Your task to perform on an android device: Show the shopping cart on amazon.com. Search for "bose soundsport free" on amazon.com, select the first entry, and add it to the cart. Image 0: 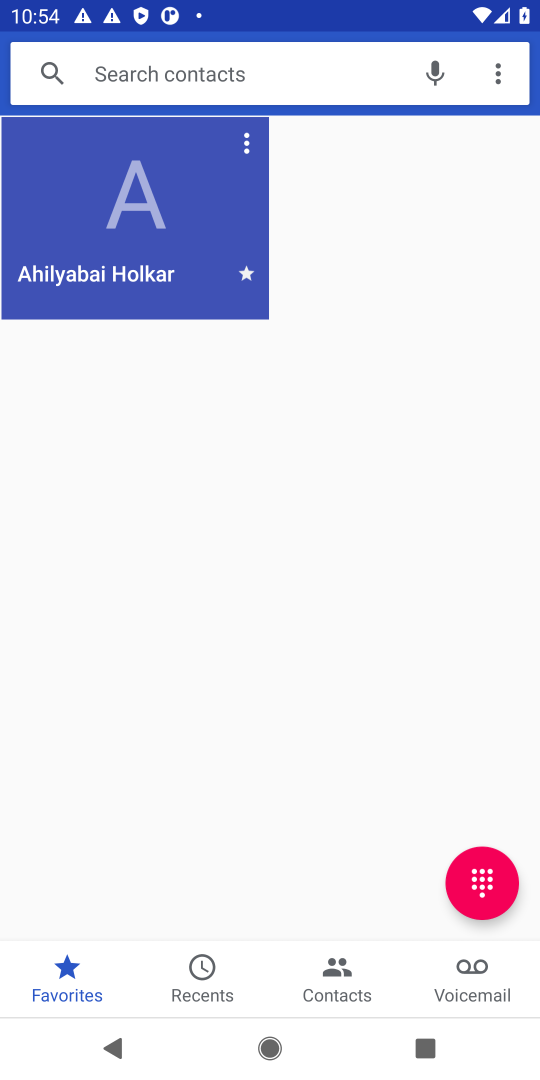
Step 0: press home button
Your task to perform on an android device: Show the shopping cart on amazon.com. Search for "bose soundsport free" on amazon.com, select the first entry, and add it to the cart. Image 1: 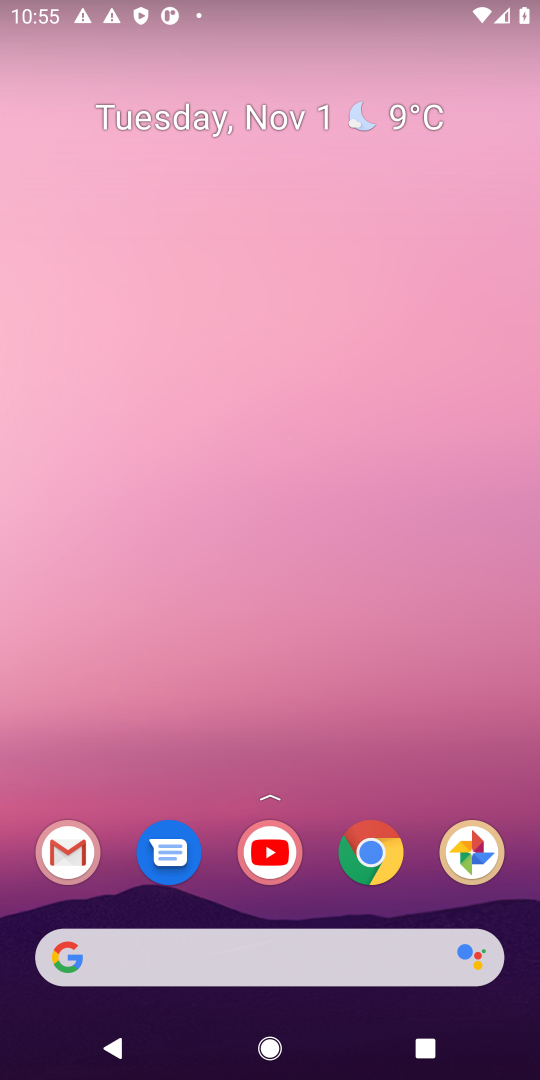
Step 1: drag from (345, 778) to (449, 278)
Your task to perform on an android device: Show the shopping cart on amazon.com. Search for "bose soundsport free" on amazon.com, select the first entry, and add it to the cart. Image 2: 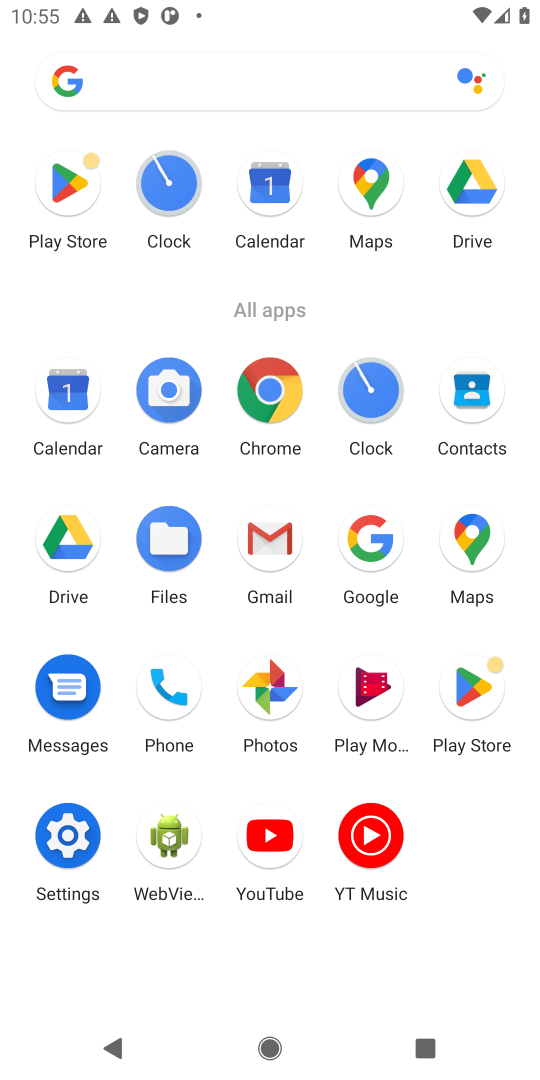
Step 2: click (364, 557)
Your task to perform on an android device: Show the shopping cart on amazon.com. Search for "bose soundsport free" on amazon.com, select the first entry, and add it to the cart. Image 3: 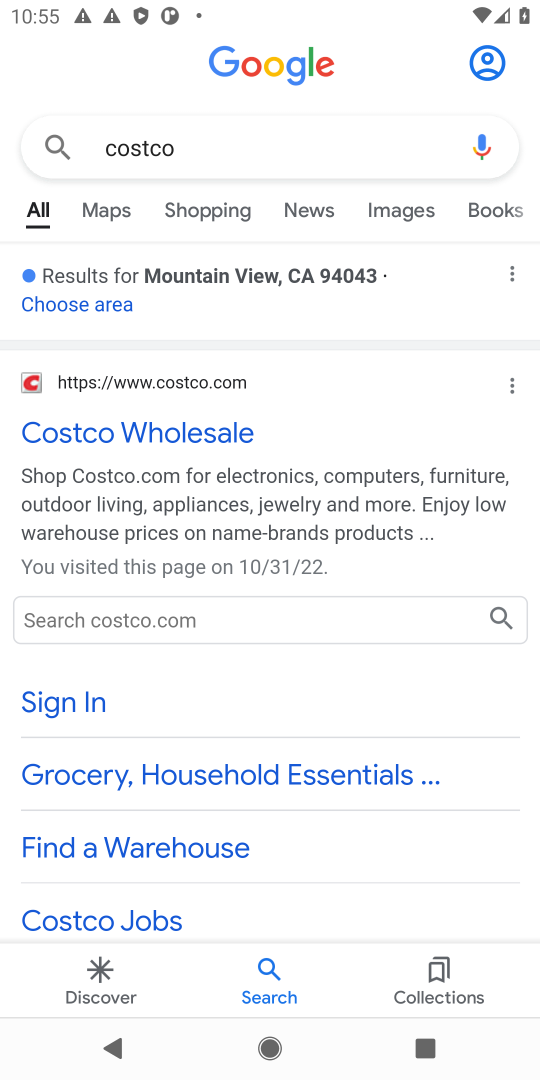
Step 3: click (349, 152)
Your task to perform on an android device: Show the shopping cart on amazon.com. Search for "bose soundsport free" on amazon.com, select the first entry, and add it to the cart. Image 4: 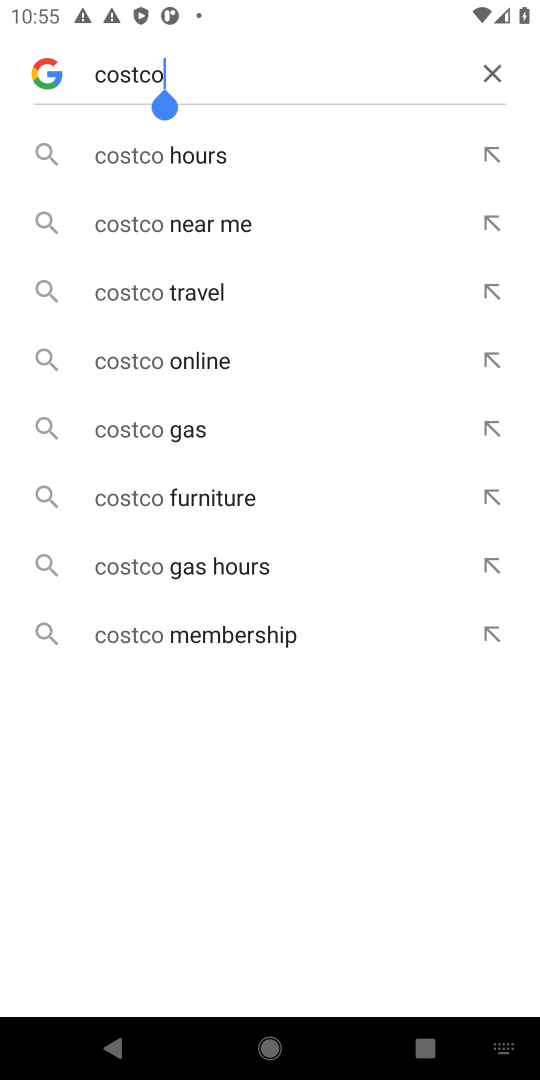
Step 4: click (504, 65)
Your task to perform on an android device: Show the shopping cart on amazon.com. Search for "bose soundsport free" on amazon.com, select the first entry, and add it to the cart. Image 5: 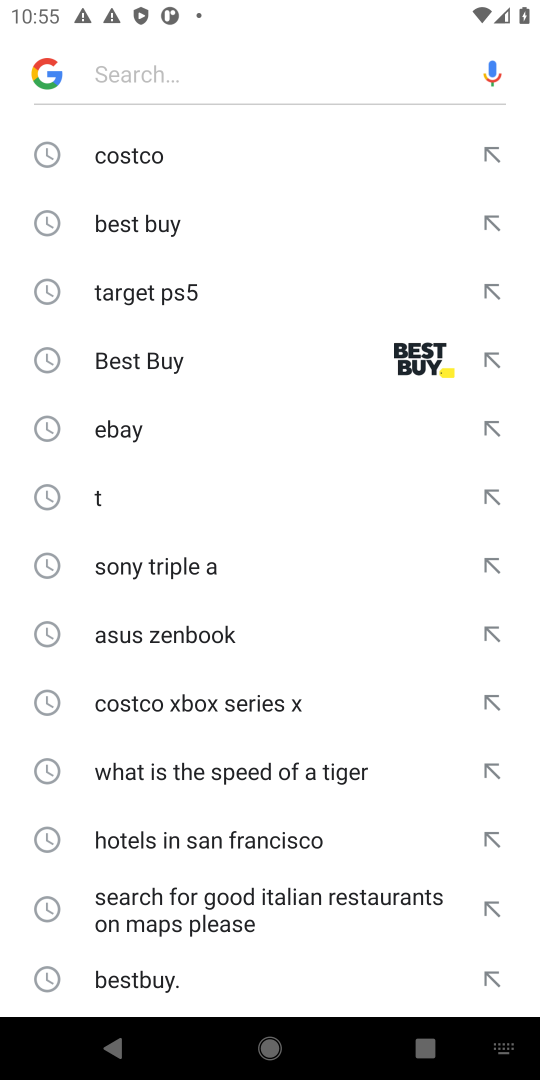
Step 5: type "amazon.com"
Your task to perform on an android device: Show the shopping cart on amazon.com. Search for "bose soundsport free" on amazon.com, select the first entry, and add it to the cart. Image 6: 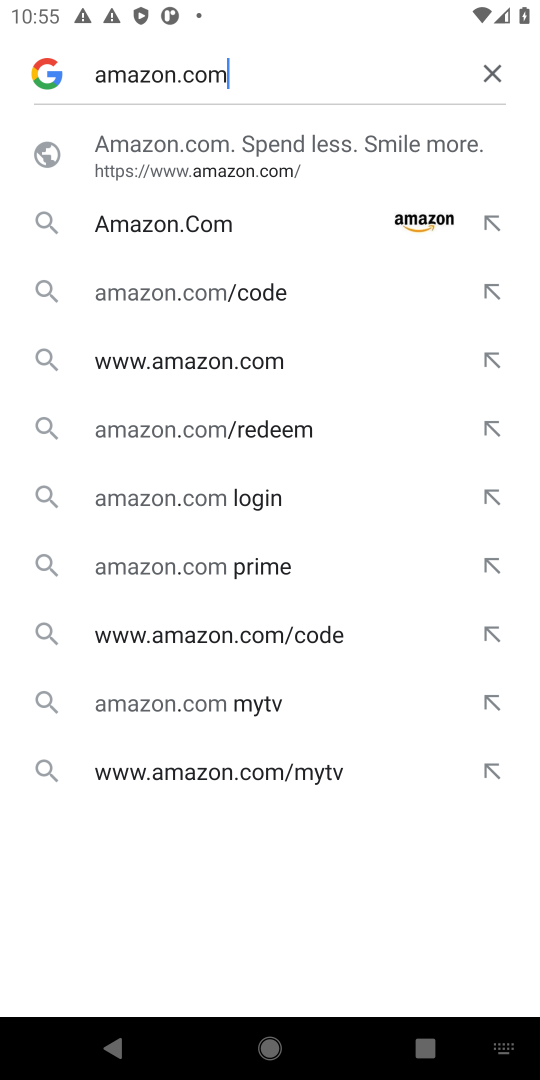
Step 6: click (281, 154)
Your task to perform on an android device: Show the shopping cart on amazon.com. Search for "bose soundsport free" on amazon.com, select the first entry, and add it to the cart. Image 7: 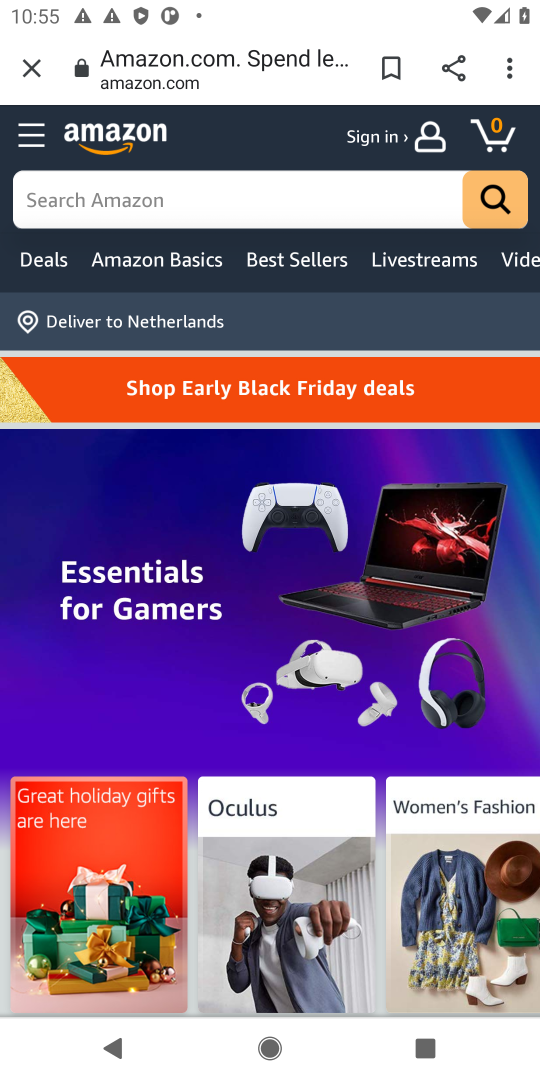
Step 7: click (303, 203)
Your task to perform on an android device: Show the shopping cart on amazon.com. Search for "bose soundsport free" on amazon.com, select the first entry, and add it to the cart. Image 8: 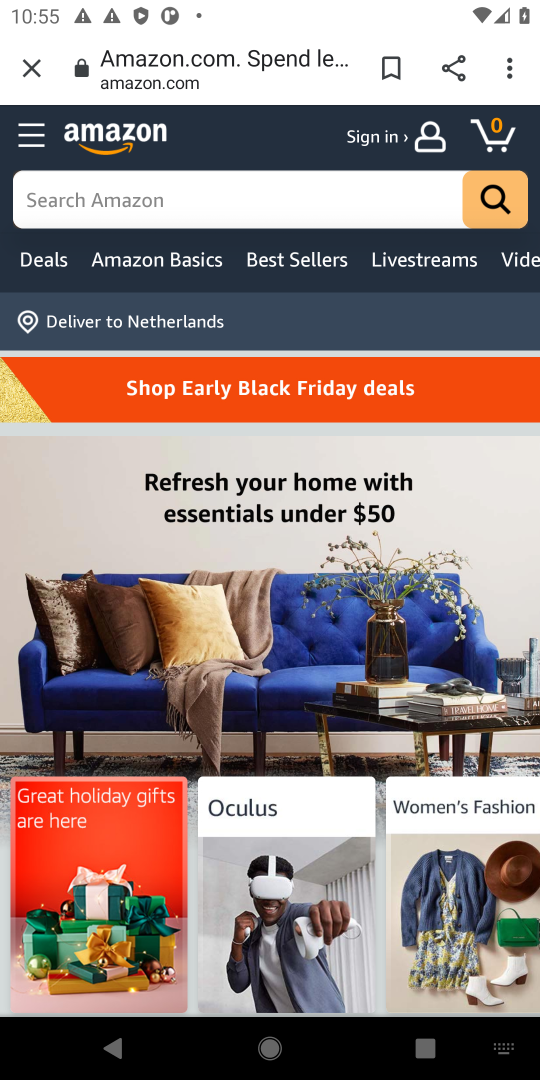
Step 8: type "bose soundsport free"
Your task to perform on an android device: Show the shopping cart on amazon.com. Search for "bose soundsport free" on amazon.com, select the first entry, and add it to the cart. Image 9: 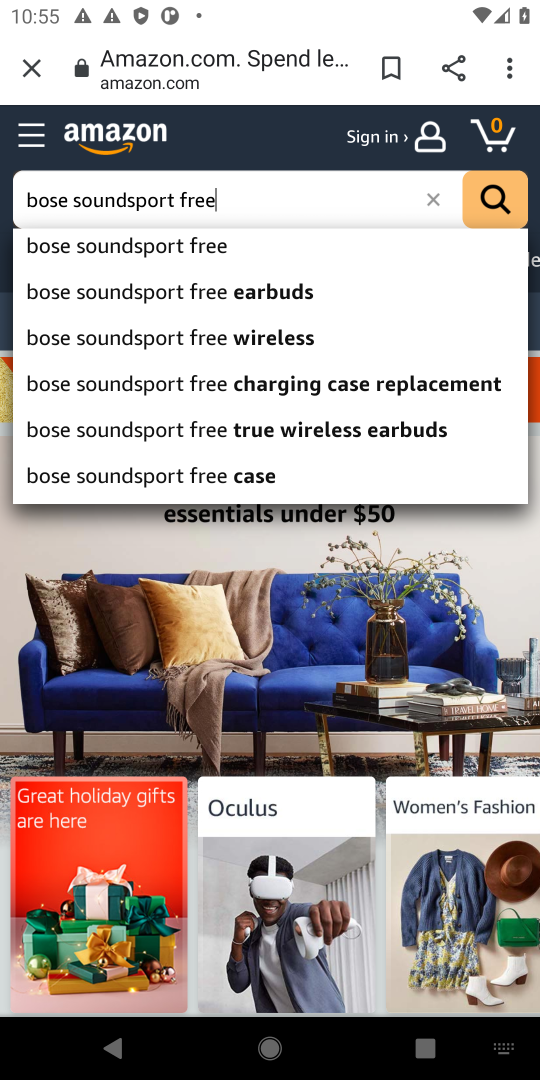
Step 9: click (188, 259)
Your task to perform on an android device: Show the shopping cart on amazon.com. Search for "bose soundsport free" on amazon.com, select the first entry, and add it to the cart. Image 10: 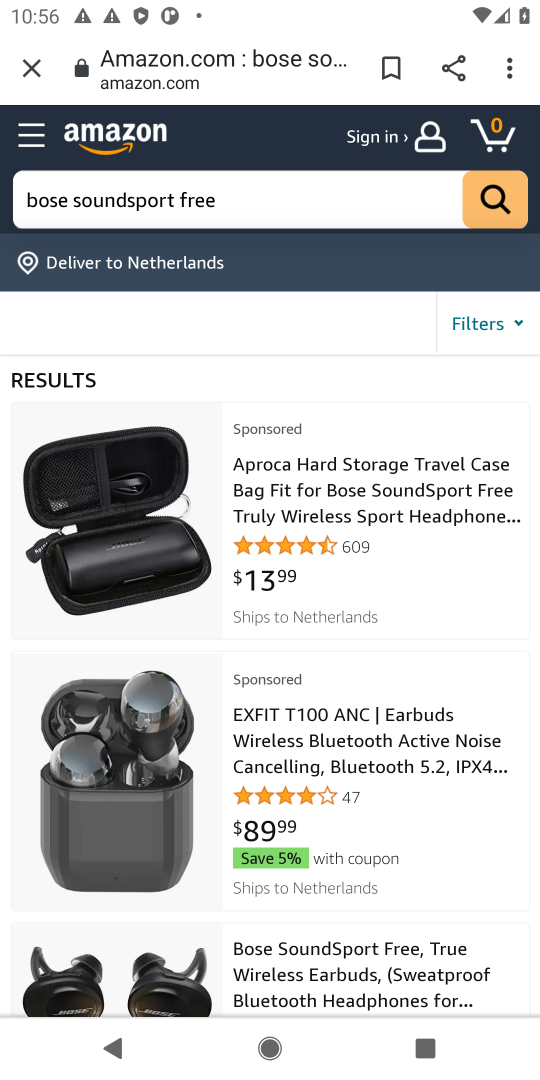
Step 10: click (326, 540)
Your task to perform on an android device: Show the shopping cart on amazon.com. Search for "bose soundsport free" on amazon.com, select the first entry, and add it to the cart. Image 11: 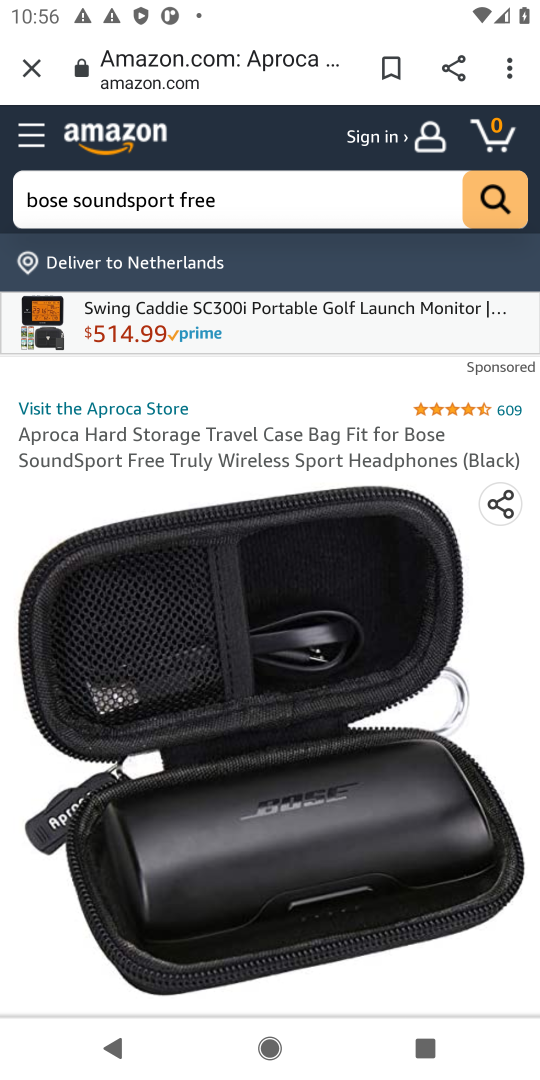
Step 11: drag from (413, 507) to (405, 397)
Your task to perform on an android device: Show the shopping cart on amazon.com. Search for "bose soundsport free" on amazon.com, select the first entry, and add it to the cart. Image 12: 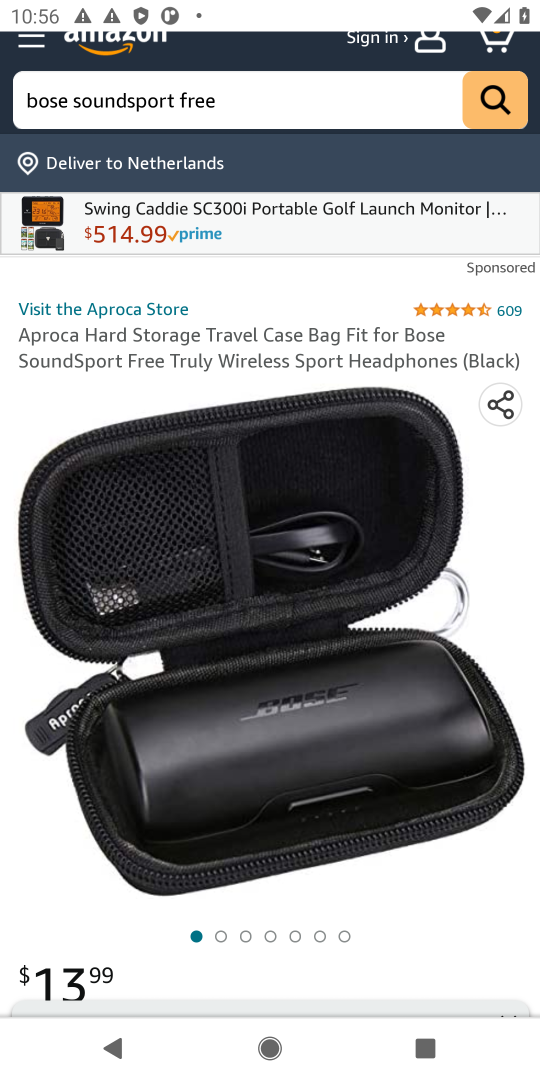
Step 12: drag from (425, 969) to (416, 252)
Your task to perform on an android device: Show the shopping cart on amazon.com. Search for "bose soundsport free" on amazon.com, select the first entry, and add it to the cart. Image 13: 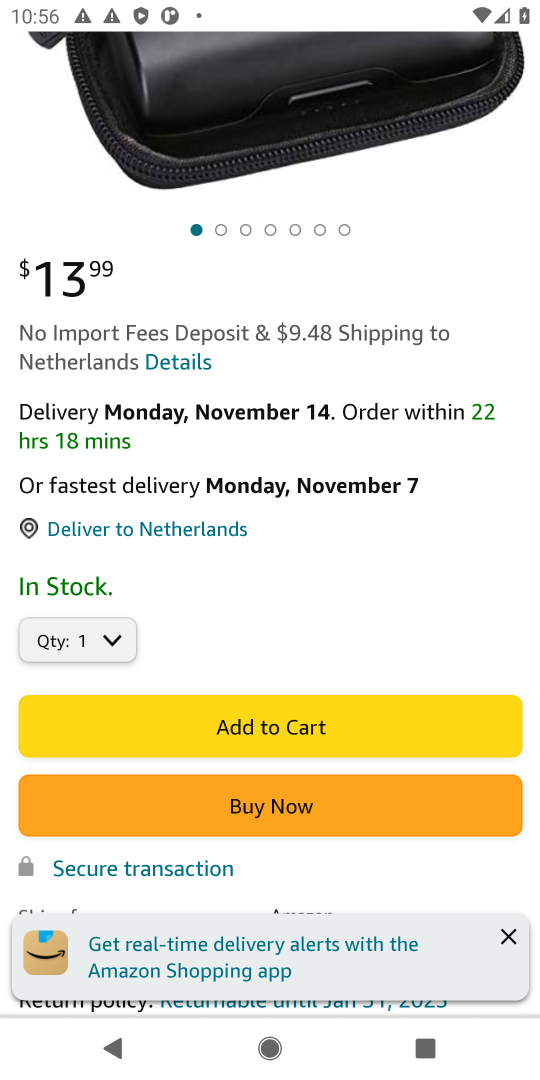
Step 13: click (362, 710)
Your task to perform on an android device: Show the shopping cart on amazon.com. Search for "bose soundsport free" on amazon.com, select the first entry, and add it to the cart. Image 14: 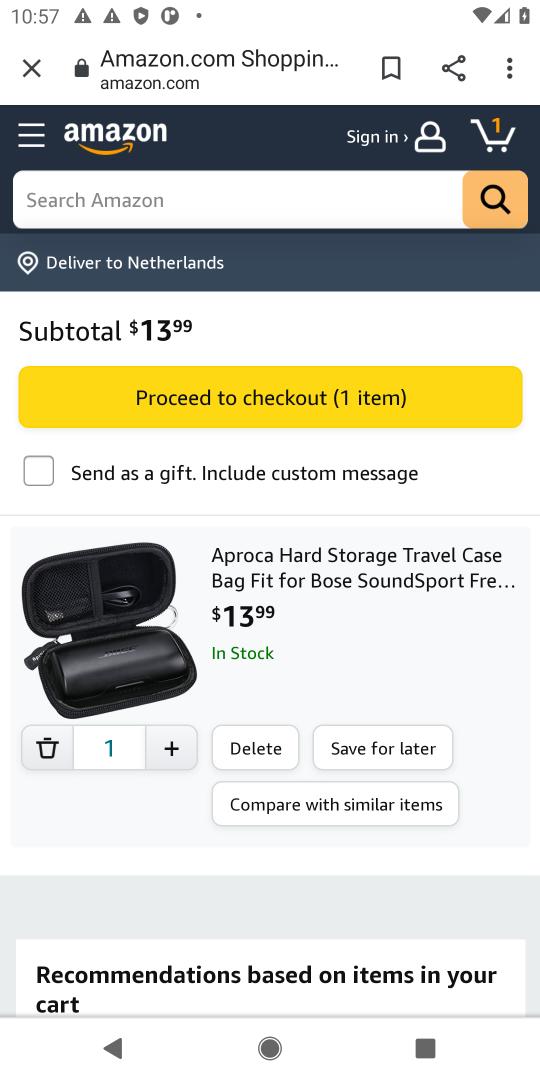
Step 14: task complete